Your task to perform on an android device: toggle improve location accuracy Image 0: 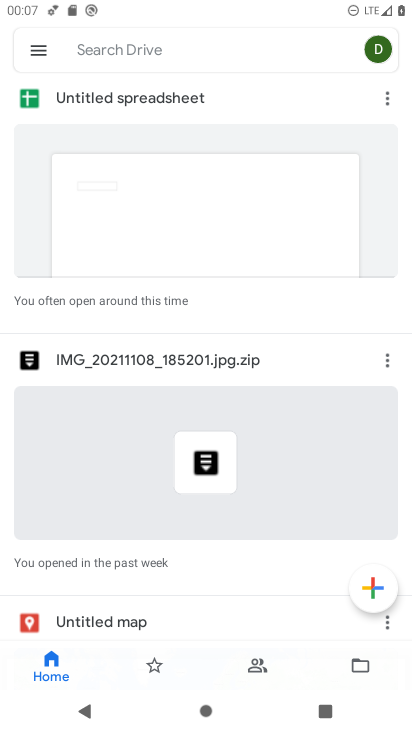
Step 0: press home button
Your task to perform on an android device: toggle improve location accuracy Image 1: 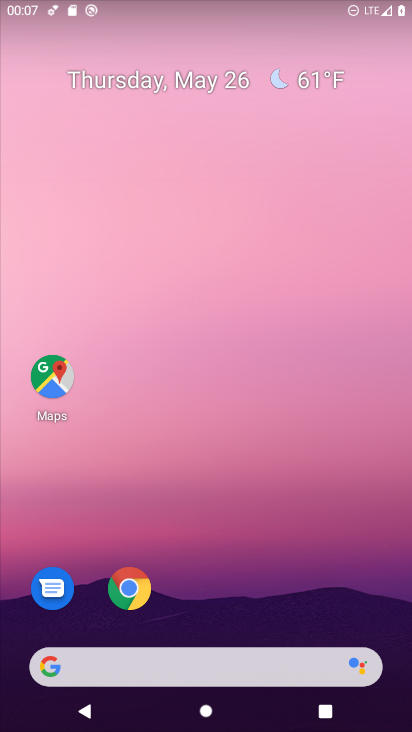
Step 1: drag from (276, 539) to (185, 131)
Your task to perform on an android device: toggle improve location accuracy Image 2: 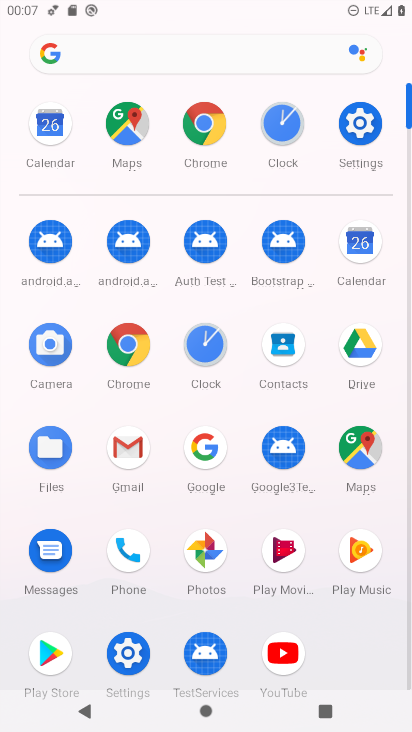
Step 2: click (361, 127)
Your task to perform on an android device: toggle improve location accuracy Image 3: 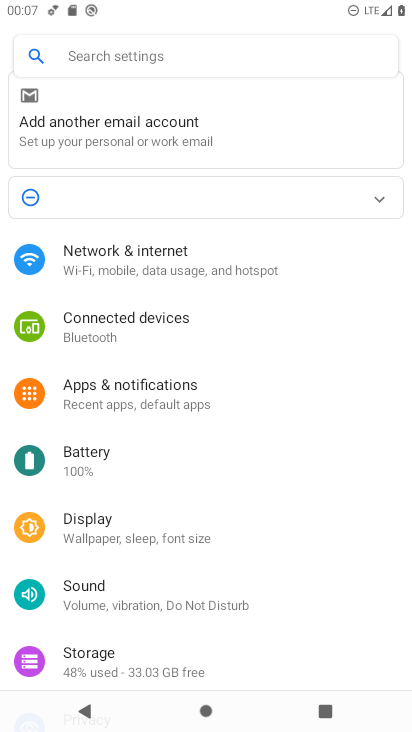
Step 3: drag from (168, 617) to (128, 233)
Your task to perform on an android device: toggle improve location accuracy Image 4: 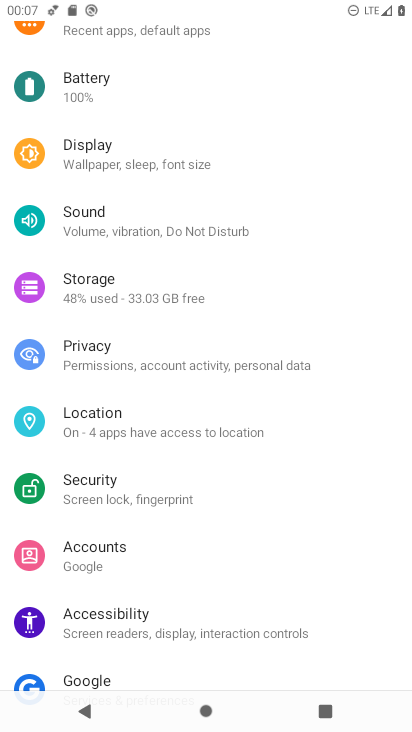
Step 4: click (86, 415)
Your task to perform on an android device: toggle improve location accuracy Image 5: 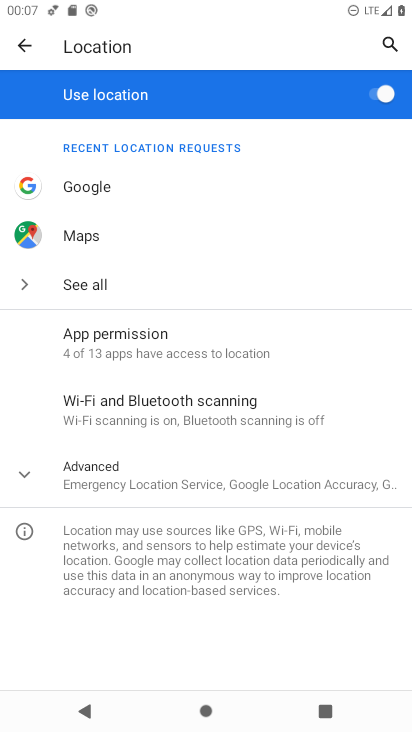
Step 5: click (95, 478)
Your task to perform on an android device: toggle improve location accuracy Image 6: 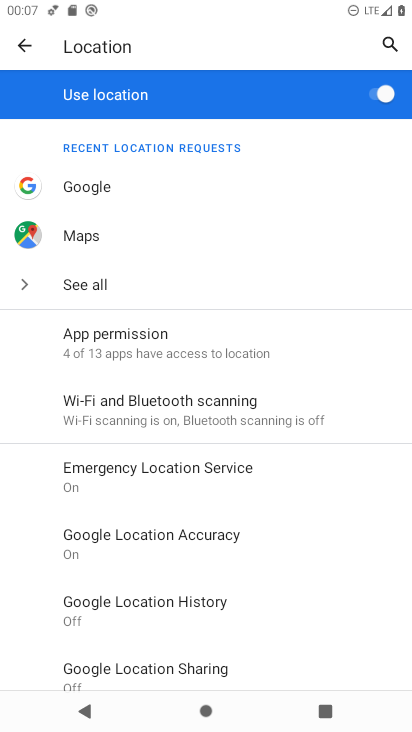
Step 6: click (164, 539)
Your task to perform on an android device: toggle improve location accuracy Image 7: 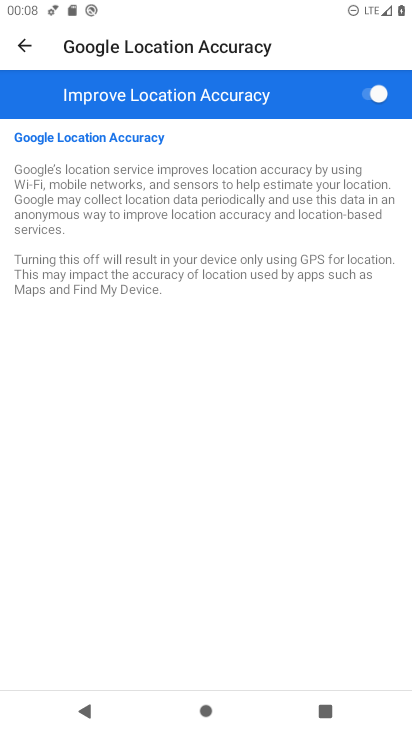
Step 7: click (383, 90)
Your task to perform on an android device: toggle improve location accuracy Image 8: 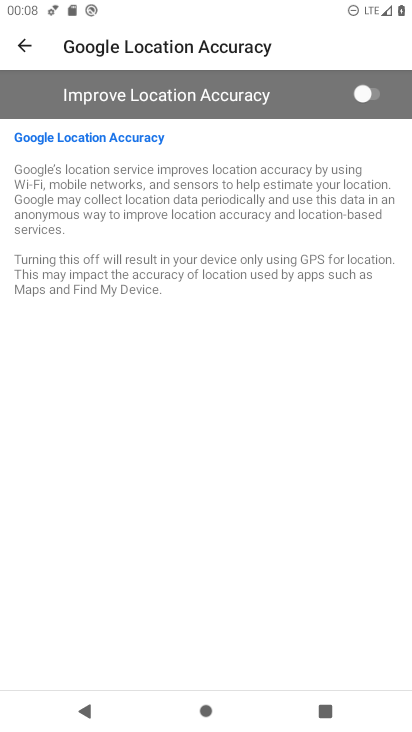
Step 8: task complete